Your task to perform on an android device: toggle notification dots Image 0: 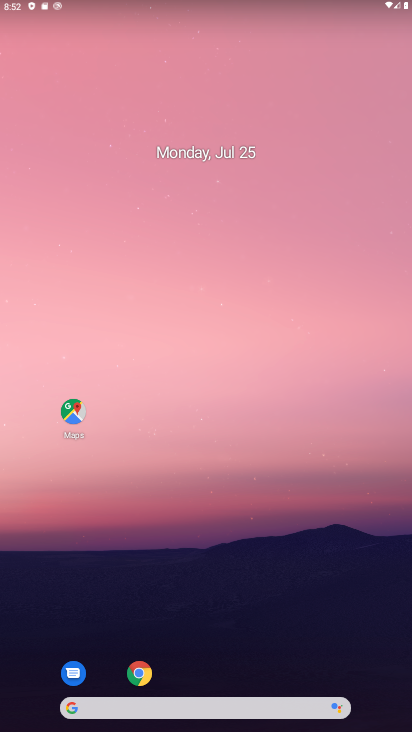
Step 0: press home button
Your task to perform on an android device: toggle notification dots Image 1: 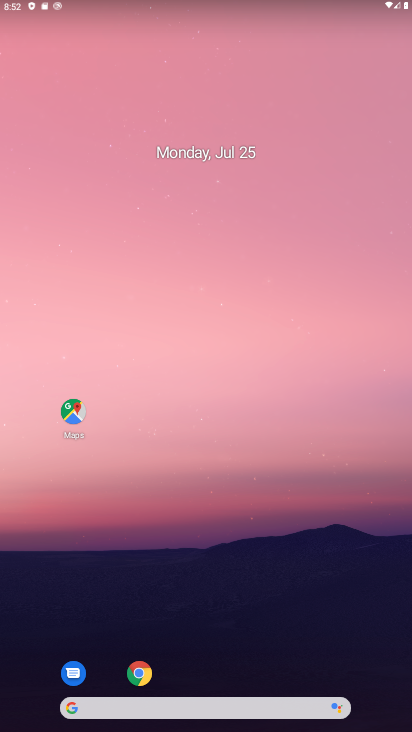
Step 1: drag from (208, 675) to (256, 29)
Your task to perform on an android device: toggle notification dots Image 2: 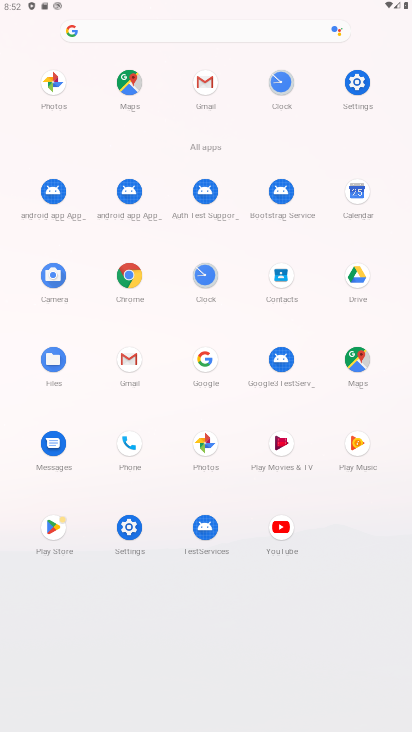
Step 2: click (355, 81)
Your task to perform on an android device: toggle notification dots Image 3: 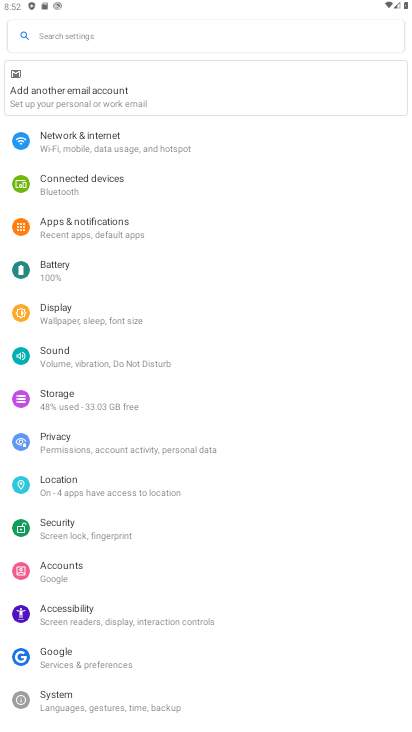
Step 3: click (113, 226)
Your task to perform on an android device: toggle notification dots Image 4: 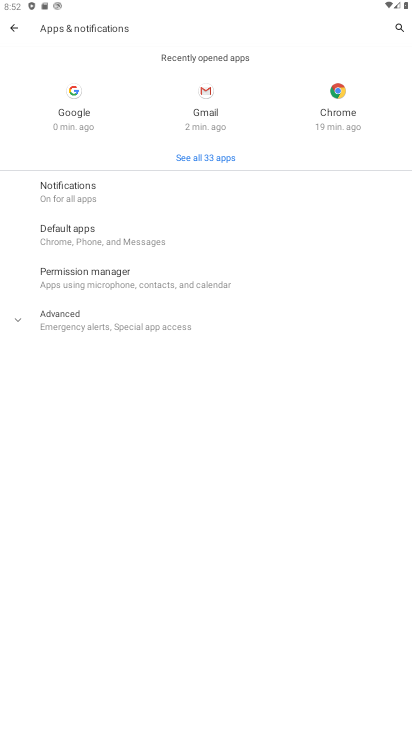
Step 4: click (104, 189)
Your task to perform on an android device: toggle notification dots Image 5: 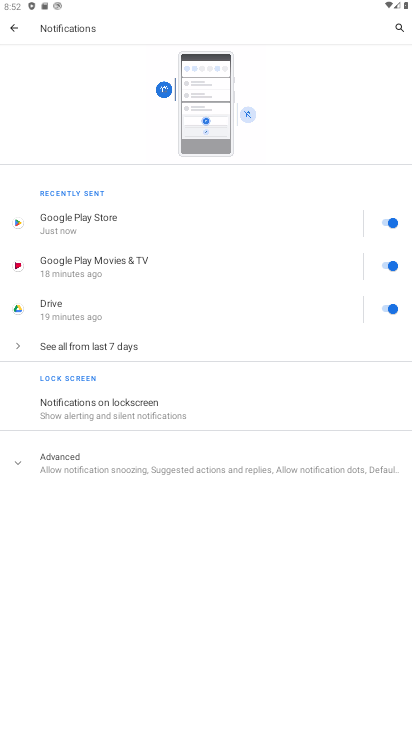
Step 5: click (20, 461)
Your task to perform on an android device: toggle notification dots Image 6: 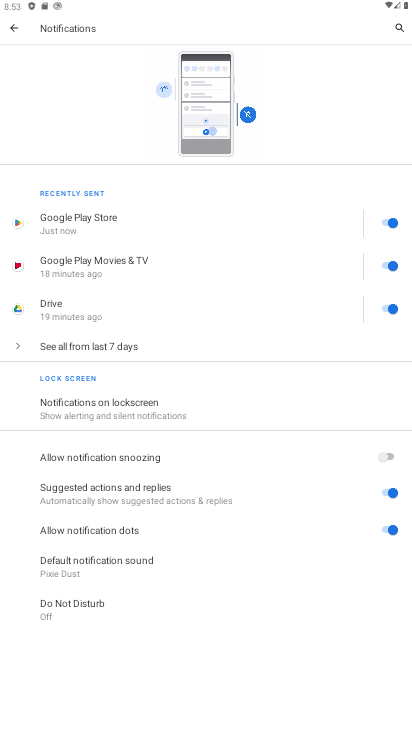
Step 6: click (384, 520)
Your task to perform on an android device: toggle notification dots Image 7: 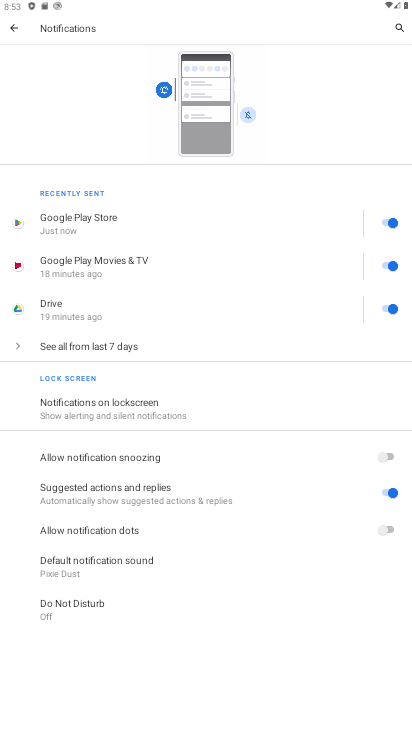
Step 7: task complete